Your task to perform on an android device: allow notifications from all sites in the chrome app Image 0: 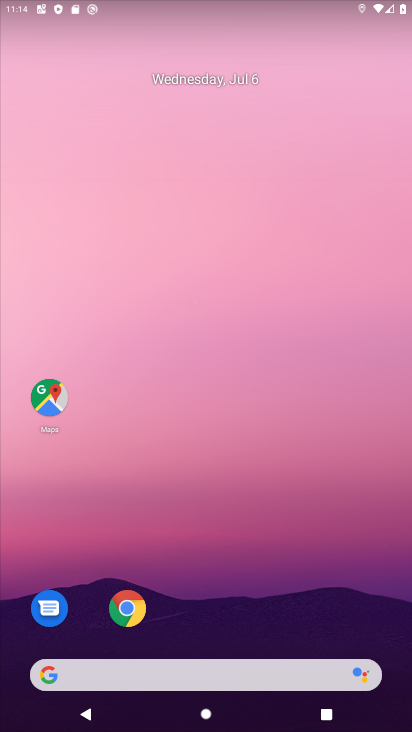
Step 0: drag from (215, 5) to (265, 429)
Your task to perform on an android device: allow notifications from all sites in the chrome app Image 1: 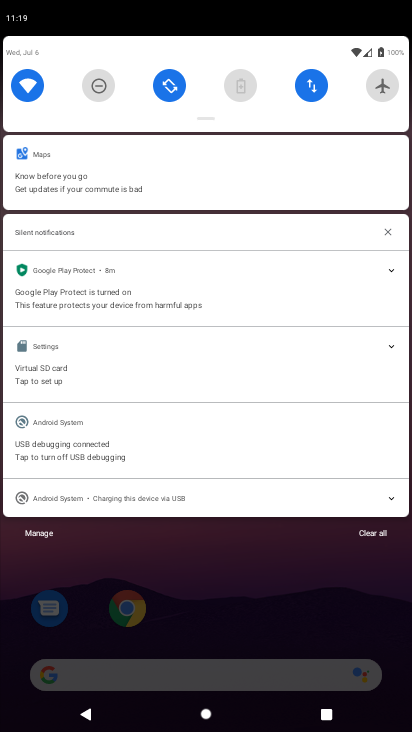
Step 1: click (322, 567)
Your task to perform on an android device: allow notifications from all sites in the chrome app Image 2: 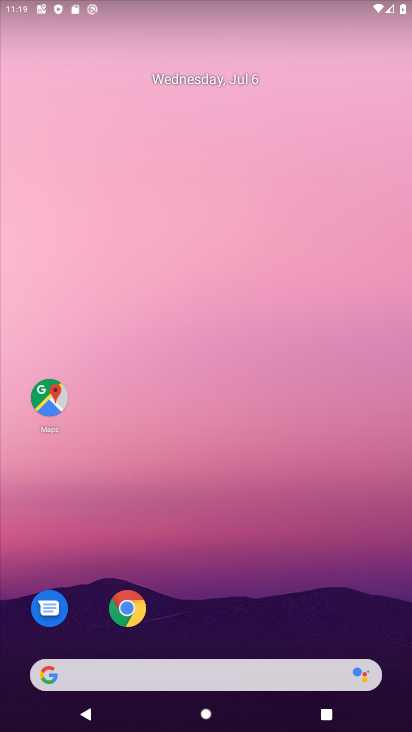
Step 2: drag from (321, 561) to (309, 282)
Your task to perform on an android device: allow notifications from all sites in the chrome app Image 3: 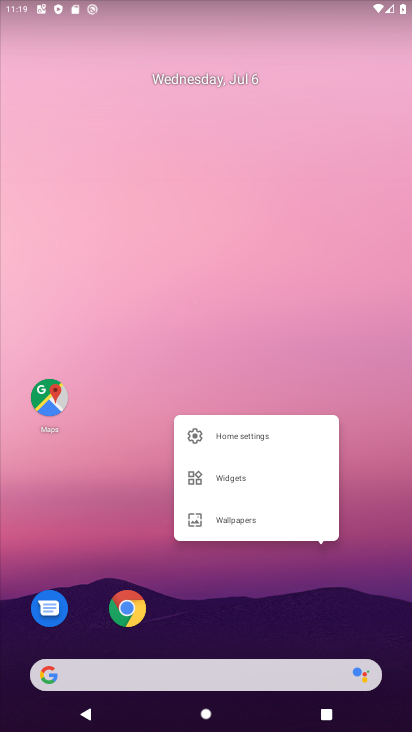
Step 3: click (313, 389)
Your task to perform on an android device: allow notifications from all sites in the chrome app Image 4: 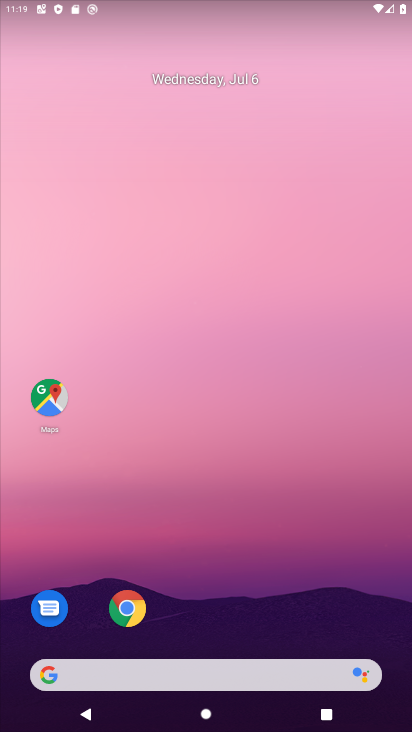
Step 4: drag from (315, 583) to (304, 222)
Your task to perform on an android device: allow notifications from all sites in the chrome app Image 5: 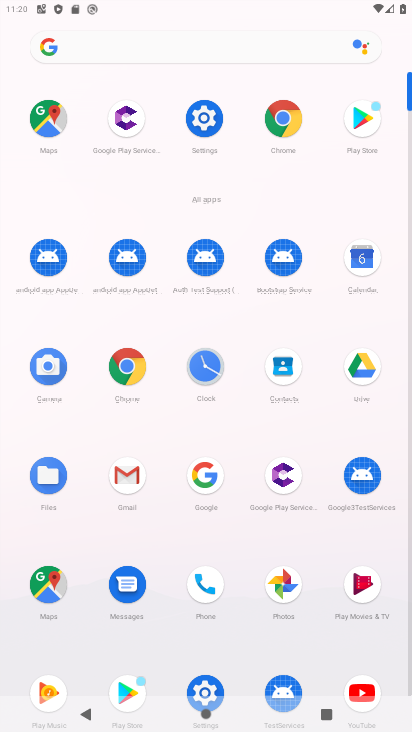
Step 5: click (284, 112)
Your task to perform on an android device: allow notifications from all sites in the chrome app Image 6: 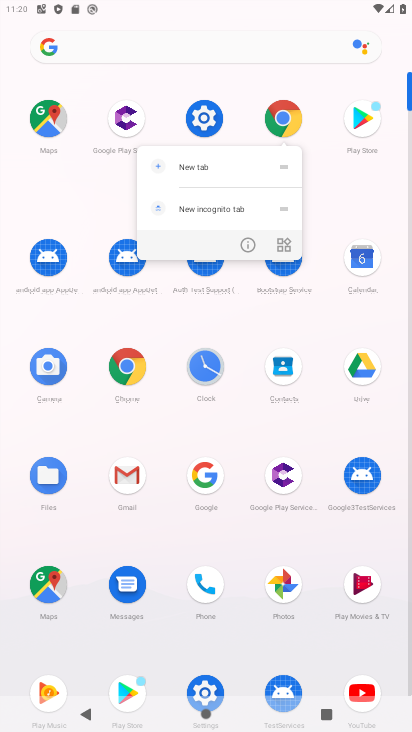
Step 6: click (242, 242)
Your task to perform on an android device: allow notifications from all sites in the chrome app Image 7: 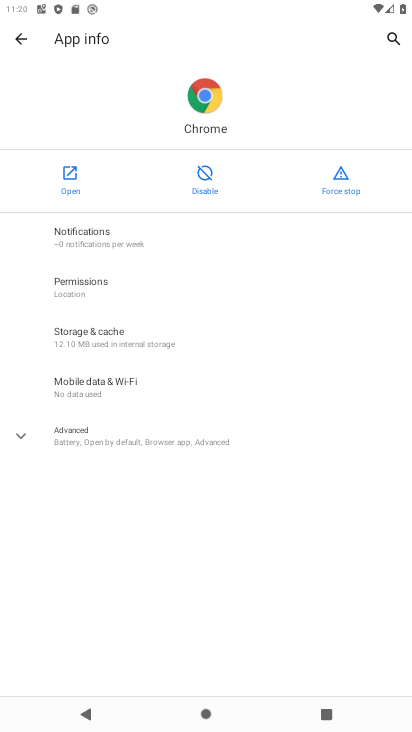
Step 7: click (80, 234)
Your task to perform on an android device: allow notifications from all sites in the chrome app Image 8: 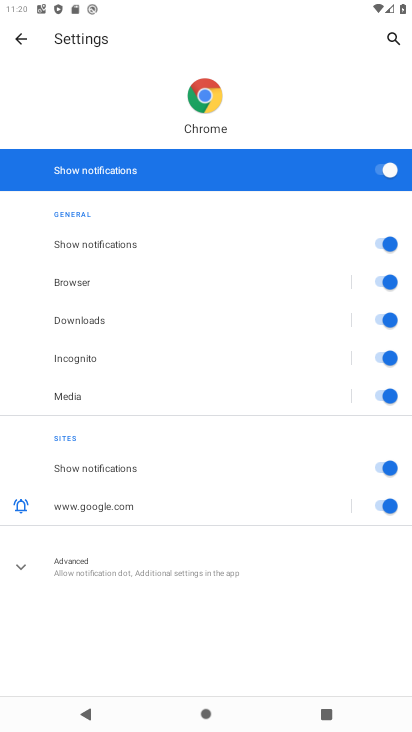
Step 8: task complete